Your task to perform on an android device: Open Google Image 0: 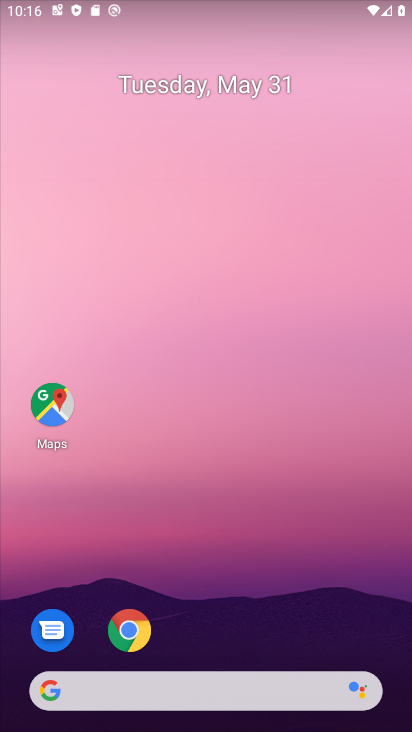
Step 0: drag from (230, 544) to (221, 136)
Your task to perform on an android device: Open Google Image 1: 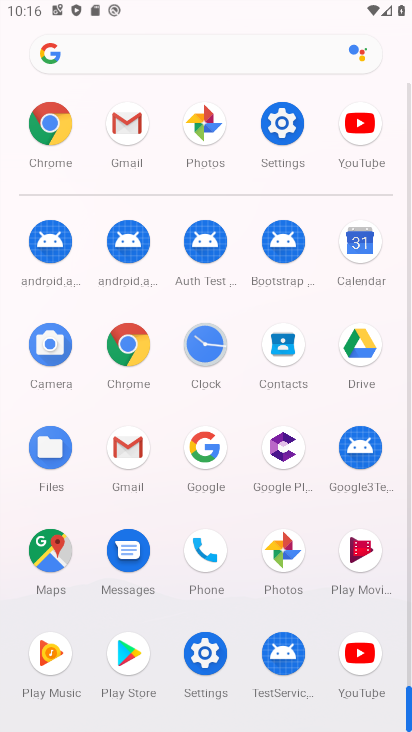
Step 1: click (205, 462)
Your task to perform on an android device: Open Google Image 2: 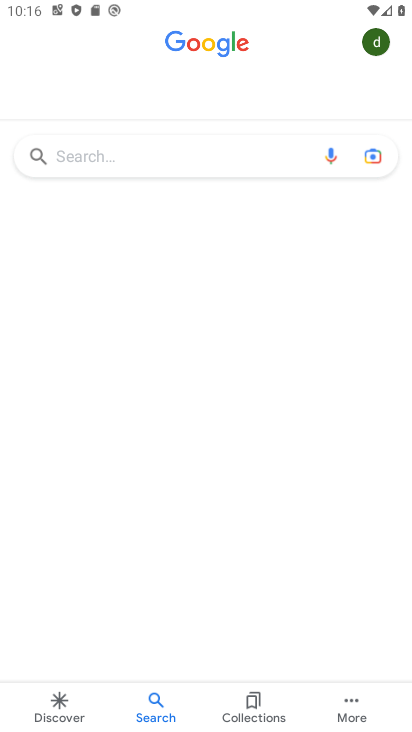
Step 2: click (67, 707)
Your task to perform on an android device: Open Google Image 3: 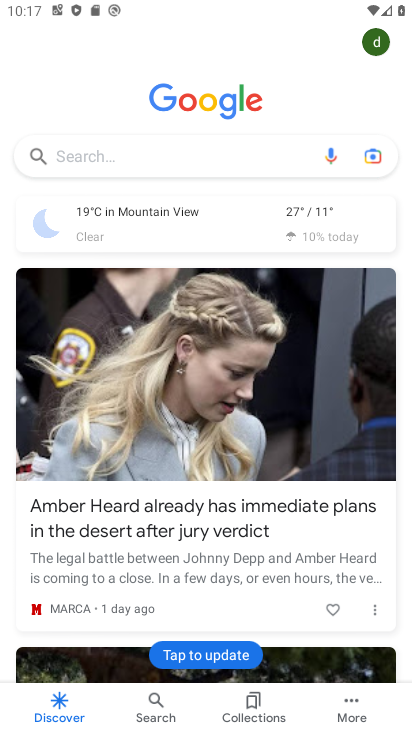
Step 3: task complete